Your task to perform on an android device: Is it going to rain tomorrow? Image 0: 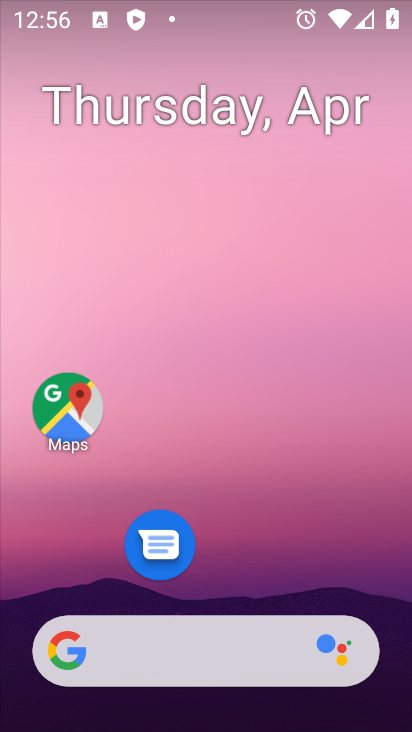
Step 0: drag from (213, 557) to (267, 96)
Your task to perform on an android device: Is it going to rain tomorrow? Image 1: 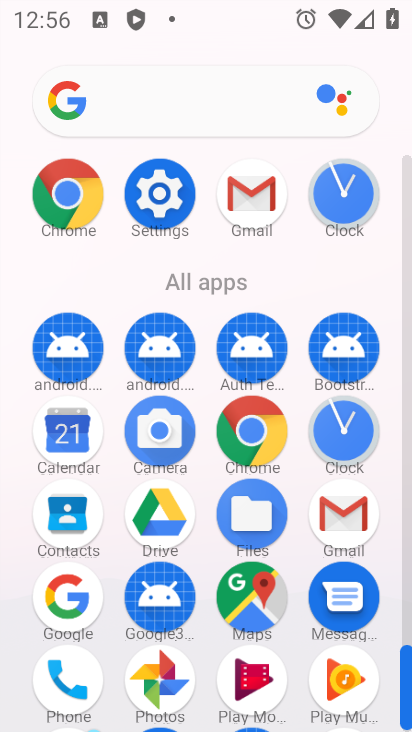
Step 1: click (71, 599)
Your task to perform on an android device: Is it going to rain tomorrow? Image 2: 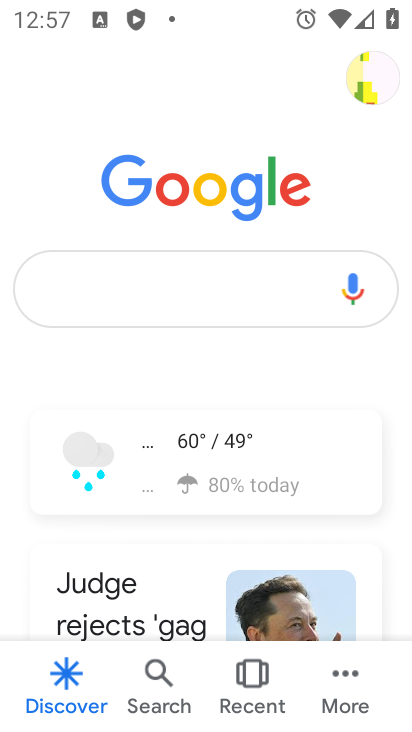
Step 2: click (212, 301)
Your task to perform on an android device: Is it going to rain tomorrow? Image 3: 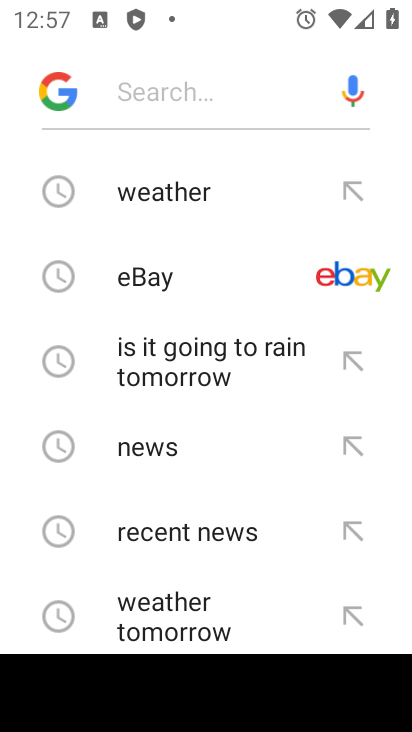
Step 3: click (209, 194)
Your task to perform on an android device: Is it going to rain tomorrow? Image 4: 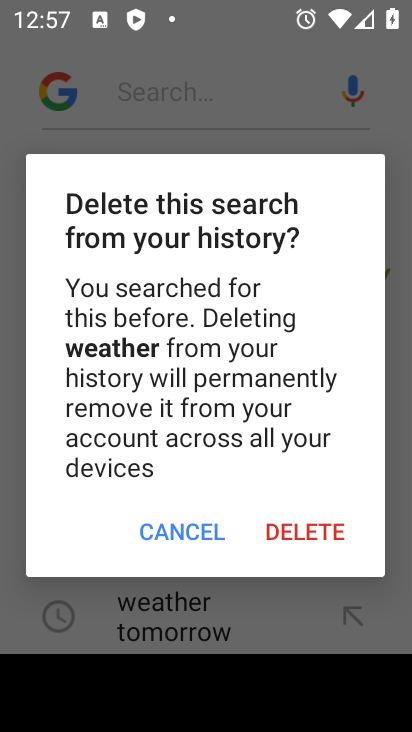
Step 4: click (318, 515)
Your task to perform on an android device: Is it going to rain tomorrow? Image 5: 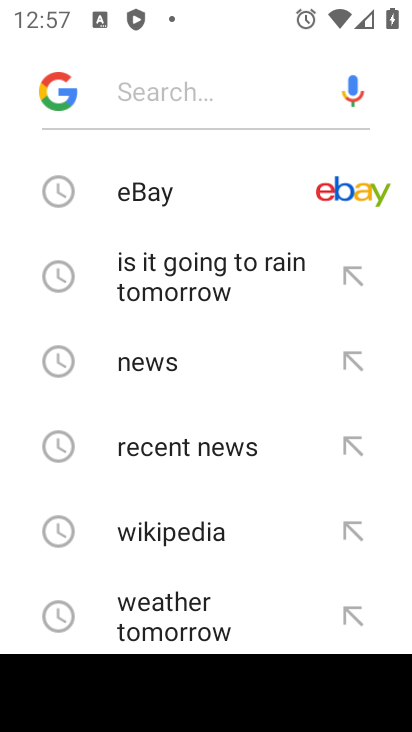
Step 5: click (231, 110)
Your task to perform on an android device: Is it going to rain tomorrow? Image 6: 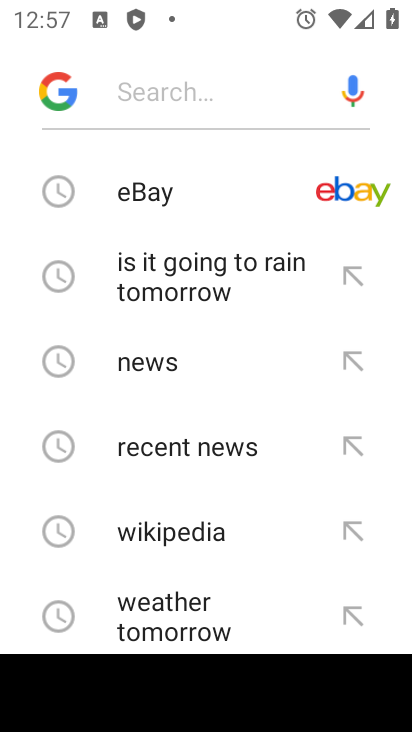
Step 6: type "weather tommorow"
Your task to perform on an android device: Is it going to rain tomorrow? Image 7: 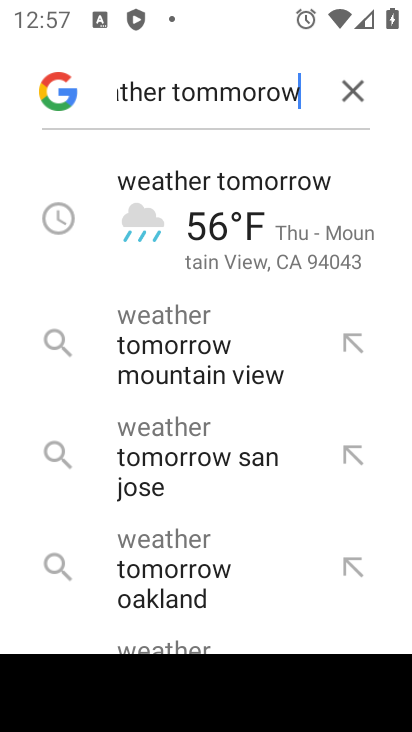
Step 7: click (261, 207)
Your task to perform on an android device: Is it going to rain tomorrow? Image 8: 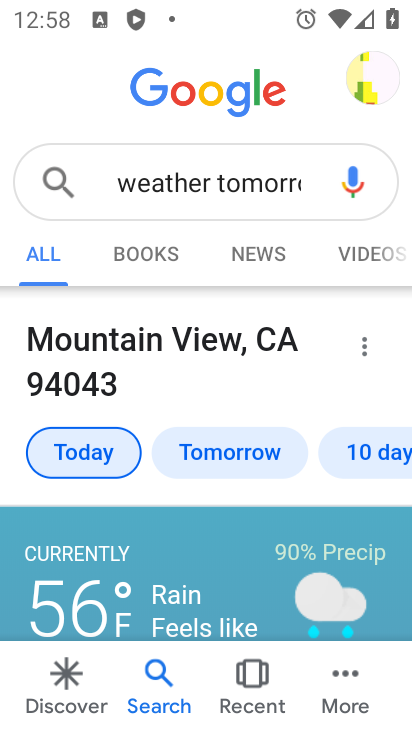
Step 8: task complete